Your task to perform on an android device: empty trash in google photos Image 0: 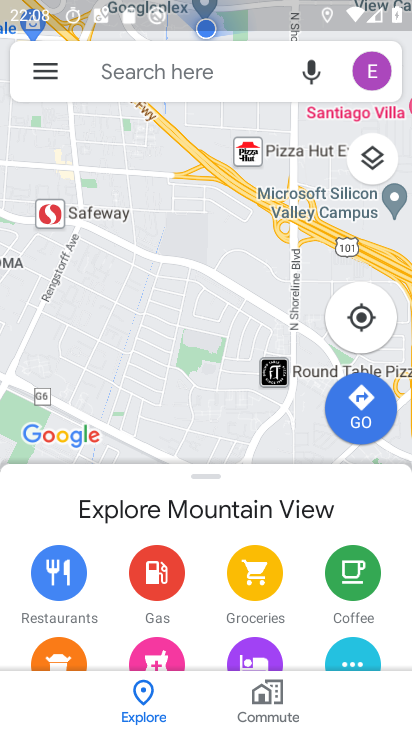
Step 0: press home button
Your task to perform on an android device: empty trash in google photos Image 1: 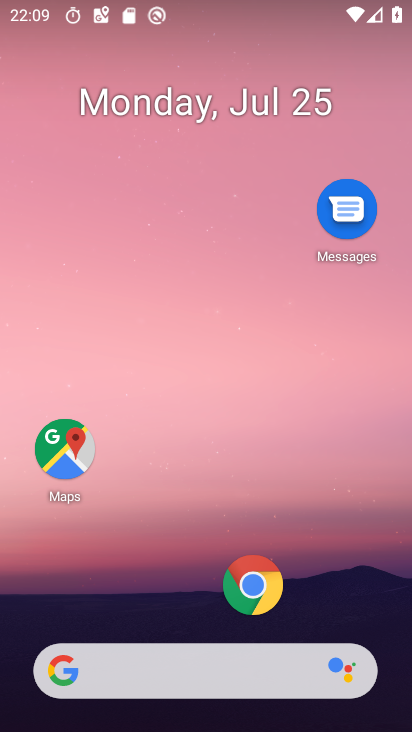
Step 1: drag from (211, 681) to (287, 103)
Your task to perform on an android device: empty trash in google photos Image 2: 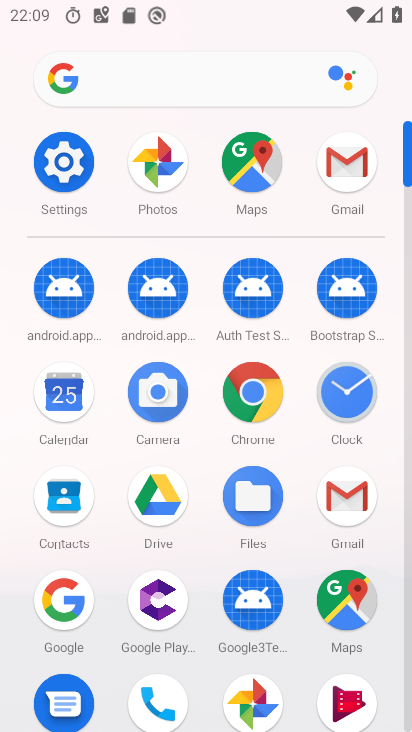
Step 2: click (259, 697)
Your task to perform on an android device: empty trash in google photos Image 3: 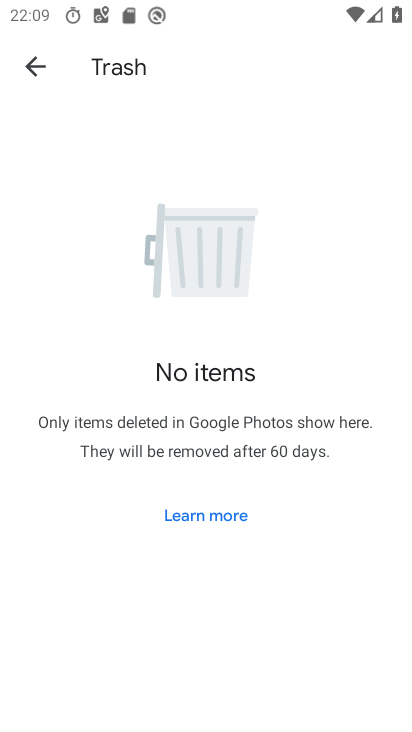
Step 3: task complete